Your task to perform on an android device: Go to ESPN.com Image 0: 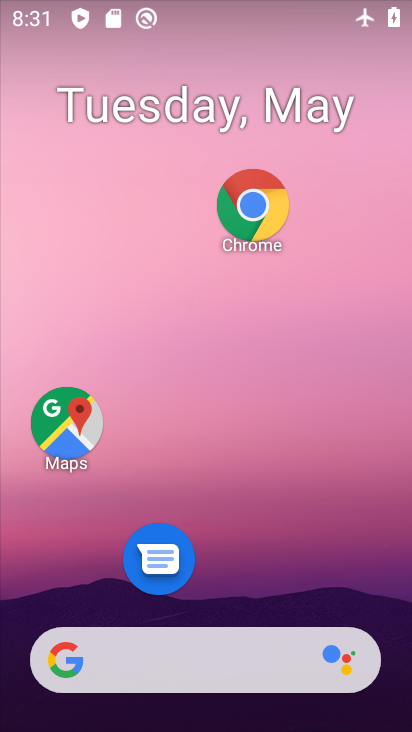
Step 0: click (266, 227)
Your task to perform on an android device: Go to ESPN.com Image 1: 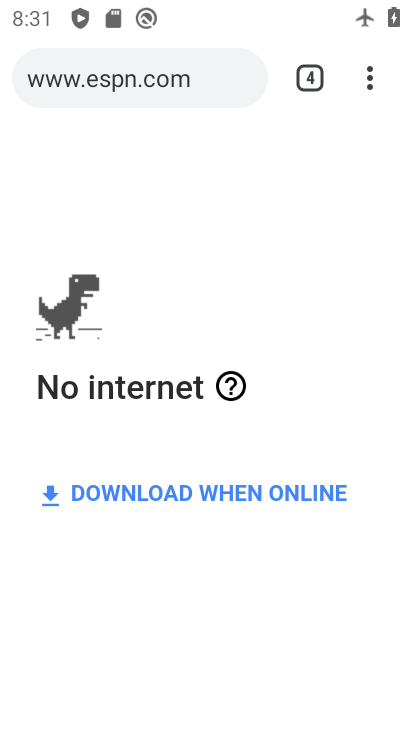
Step 1: click (306, 78)
Your task to perform on an android device: Go to ESPN.com Image 2: 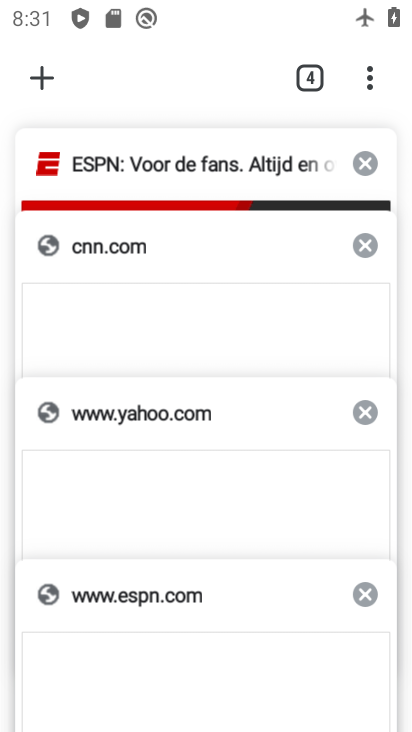
Step 2: click (159, 167)
Your task to perform on an android device: Go to ESPN.com Image 3: 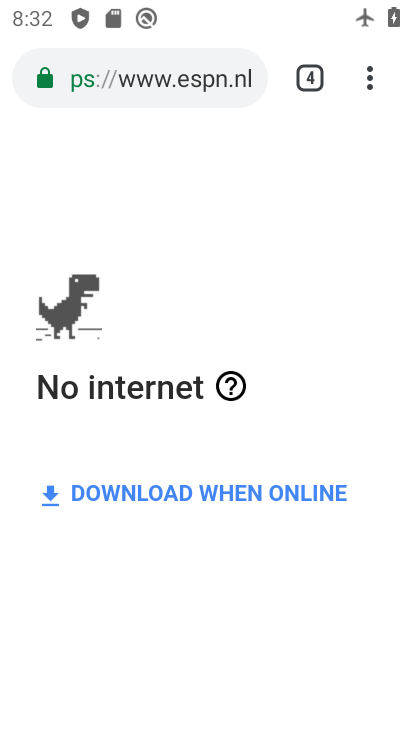
Step 3: task complete